Your task to perform on an android device: Clear the shopping cart on ebay.com. Add "duracell triple a" to the cart on ebay.com Image 0: 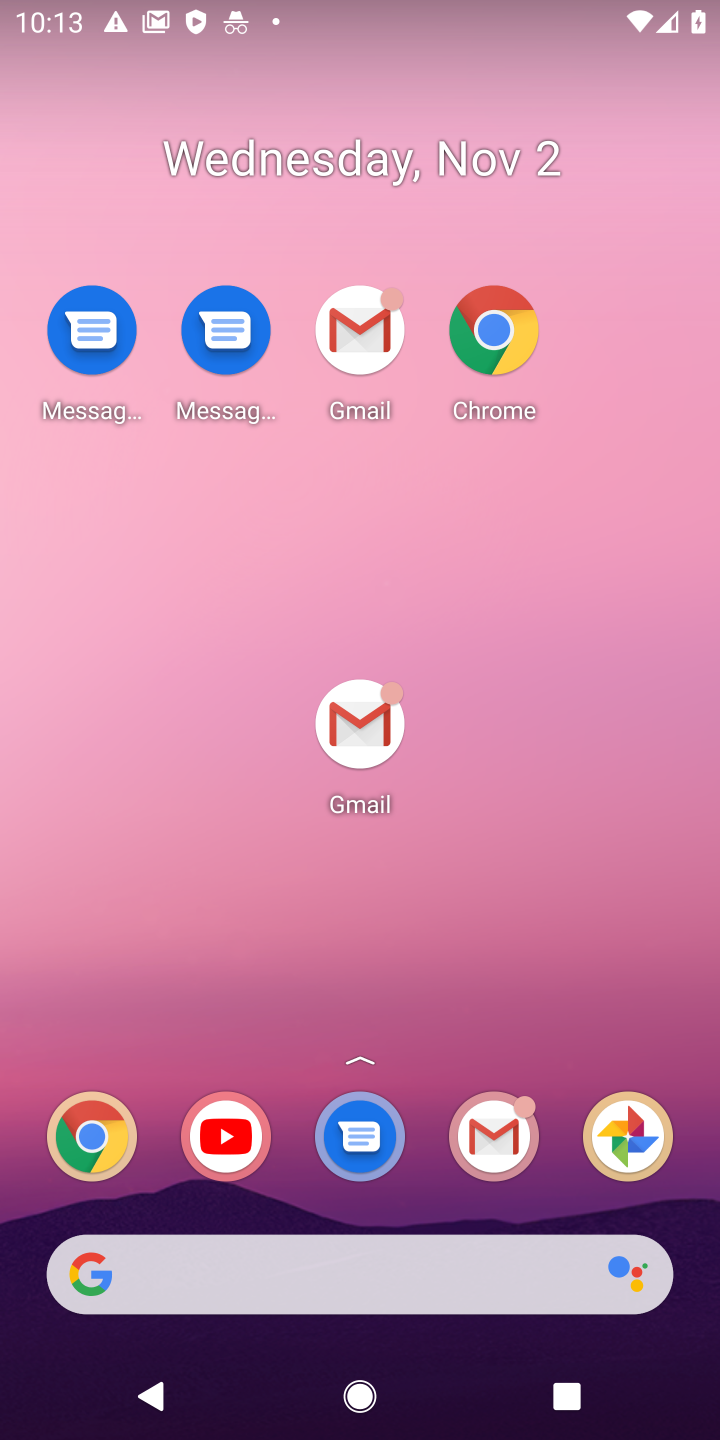
Step 0: drag from (470, 1038) to (472, 330)
Your task to perform on an android device: Clear the shopping cart on ebay.com. Add "duracell triple a" to the cart on ebay.com Image 1: 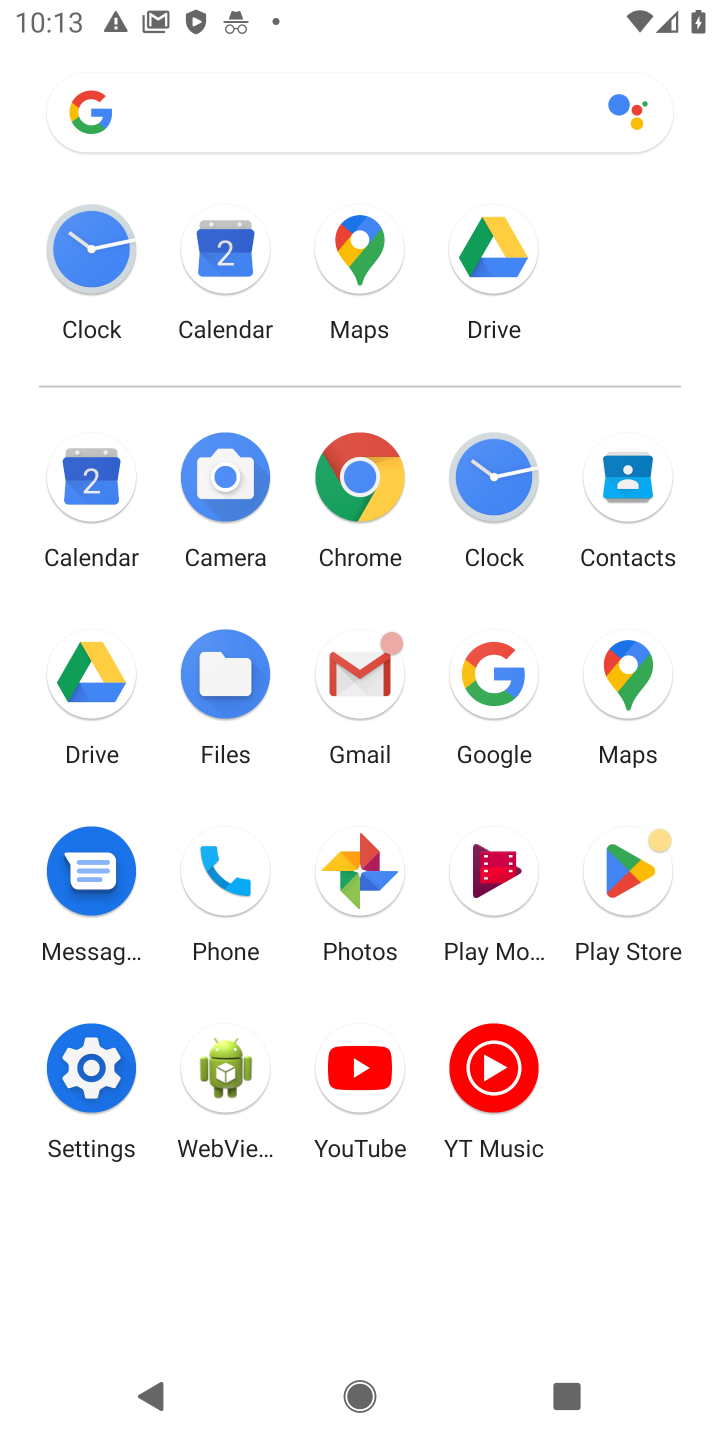
Step 1: click (503, 678)
Your task to perform on an android device: Clear the shopping cart on ebay.com. Add "duracell triple a" to the cart on ebay.com Image 2: 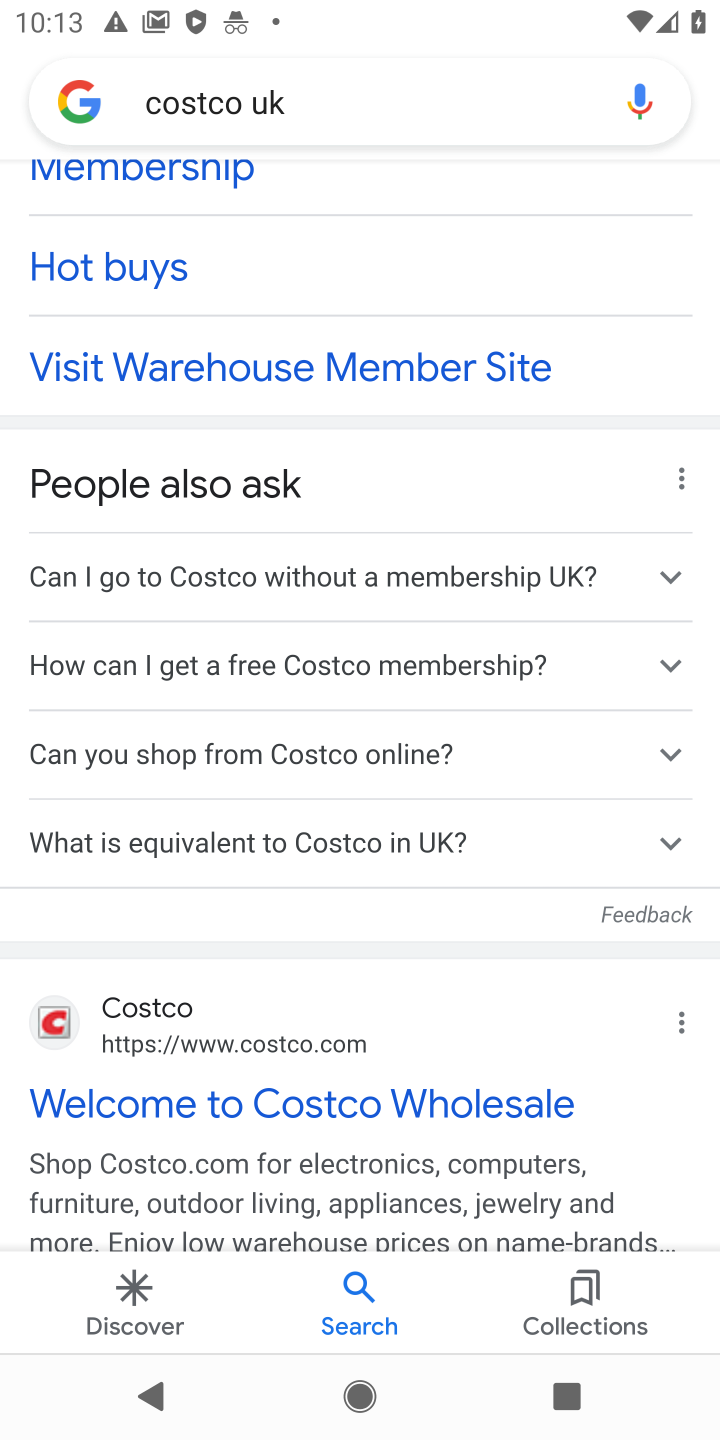
Step 2: click (344, 92)
Your task to perform on an android device: Clear the shopping cart on ebay.com. Add "duracell triple a" to the cart on ebay.com Image 3: 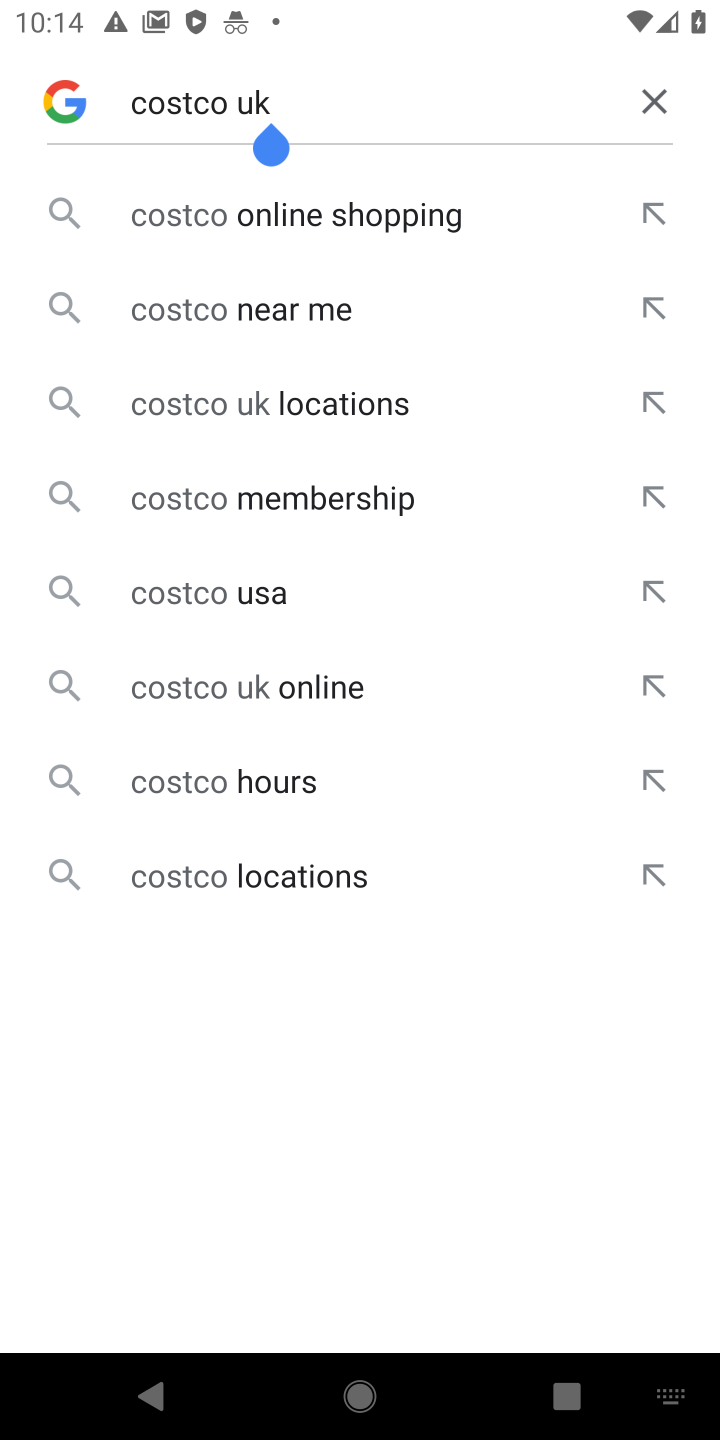
Step 3: click (660, 103)
Your task to perform on an android device: Clear the shopping cart on ebay.com. Add "duracell triple a" to the cart on ebay.com Image 4: 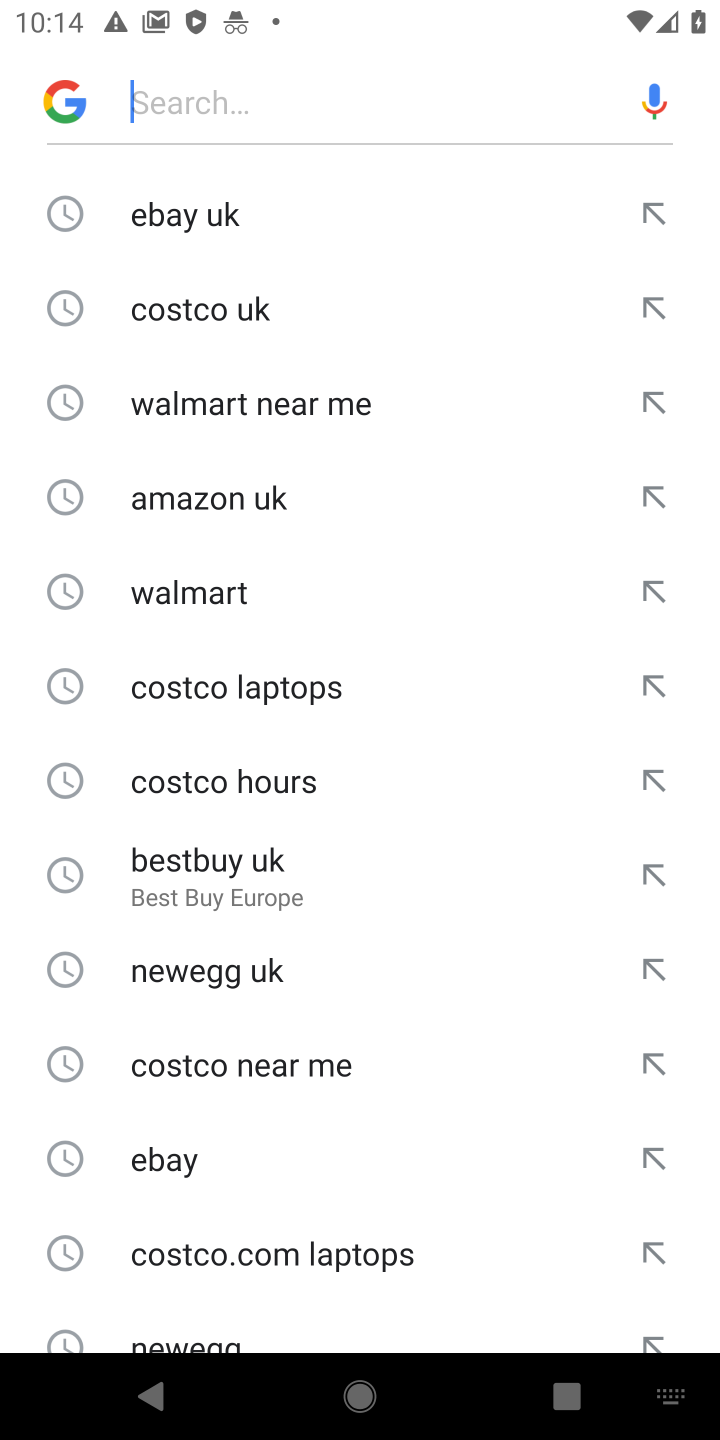
Step 4: click (227, 85)
Your task to perform on an android device: Clear the shopping cart on ebay.com. Add "duracell triple a" to the cart on ebay.com Image 5: 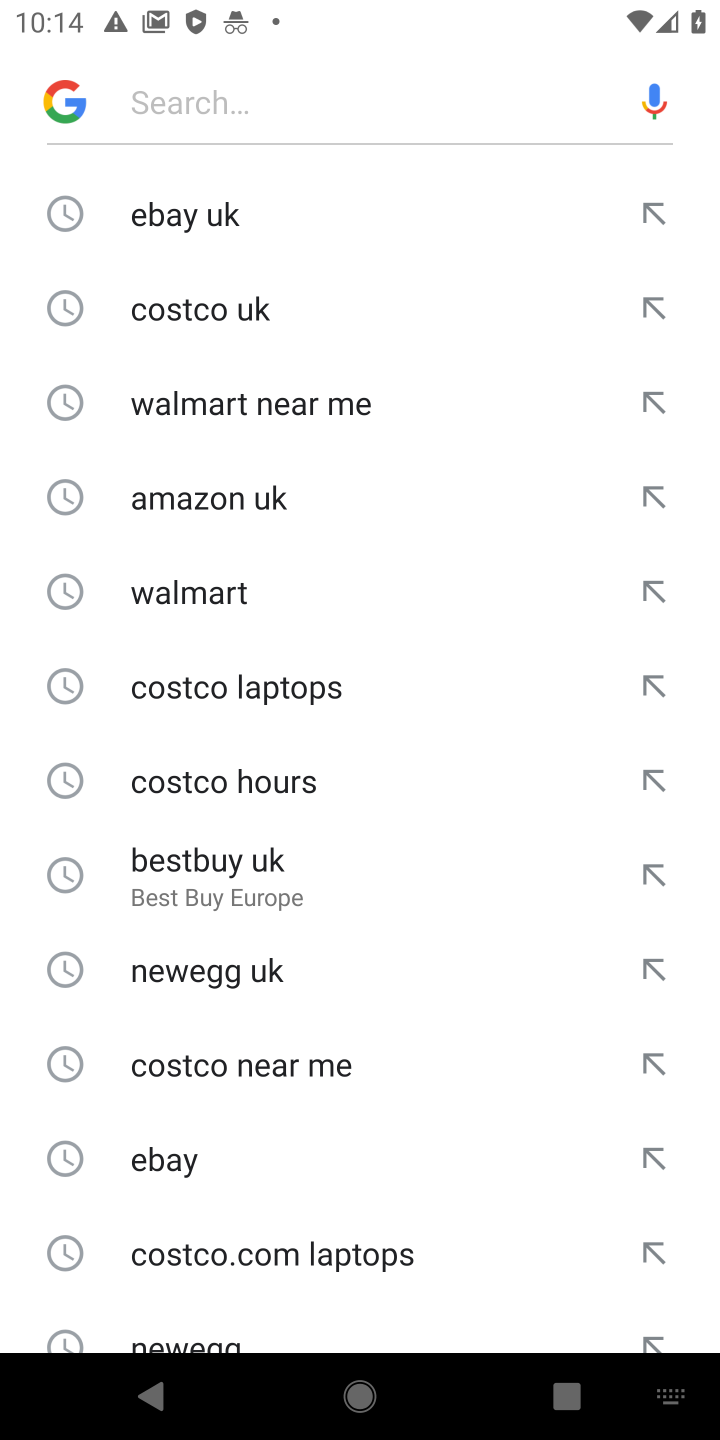
Step 5: type "ebay "
Your task to perform on an android device: Clear the shopping cart on ebay.com. Add "duracell triple a" to the cart on ebay.com Image 6: 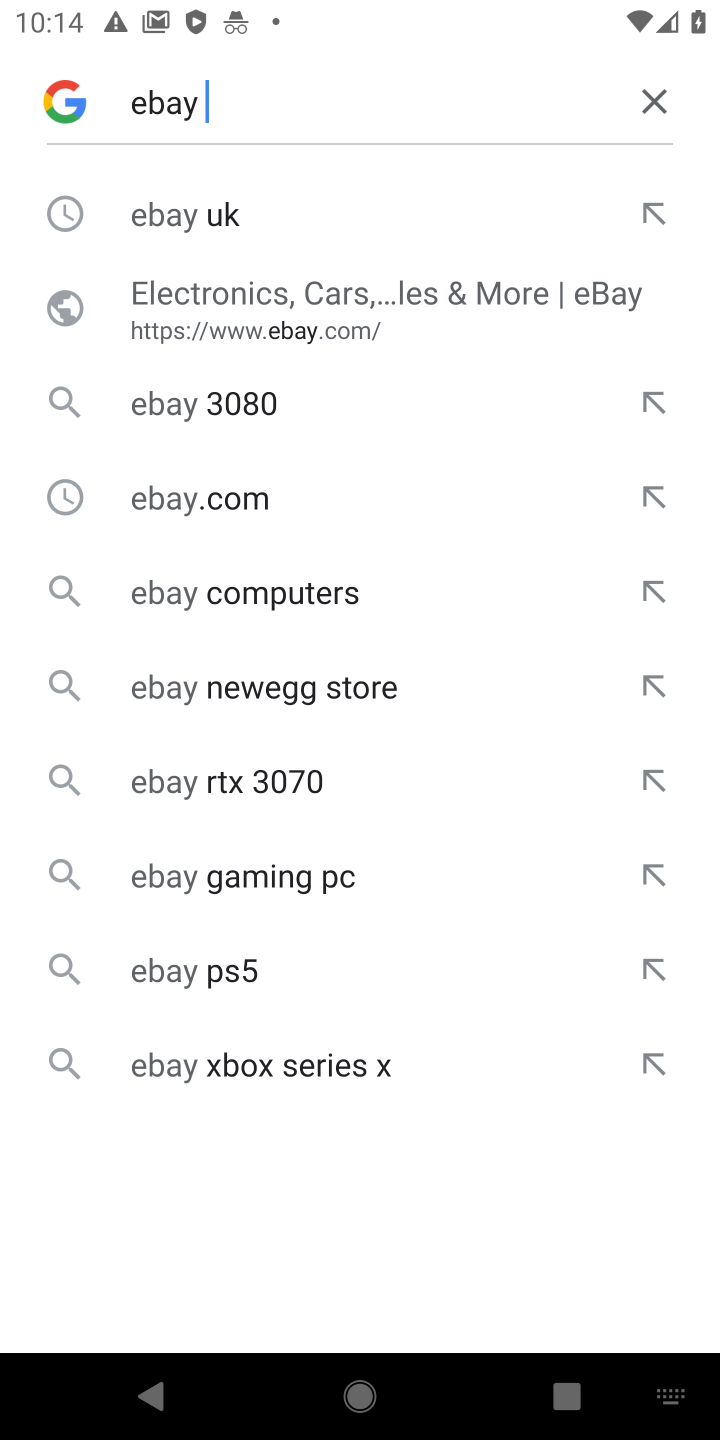
Step 6: click (177, 192)
Your task to perform on an android device: Clear the shopping cart on ebay.com. Add "duracell triple a" to the cart on ebay.com Image 7: 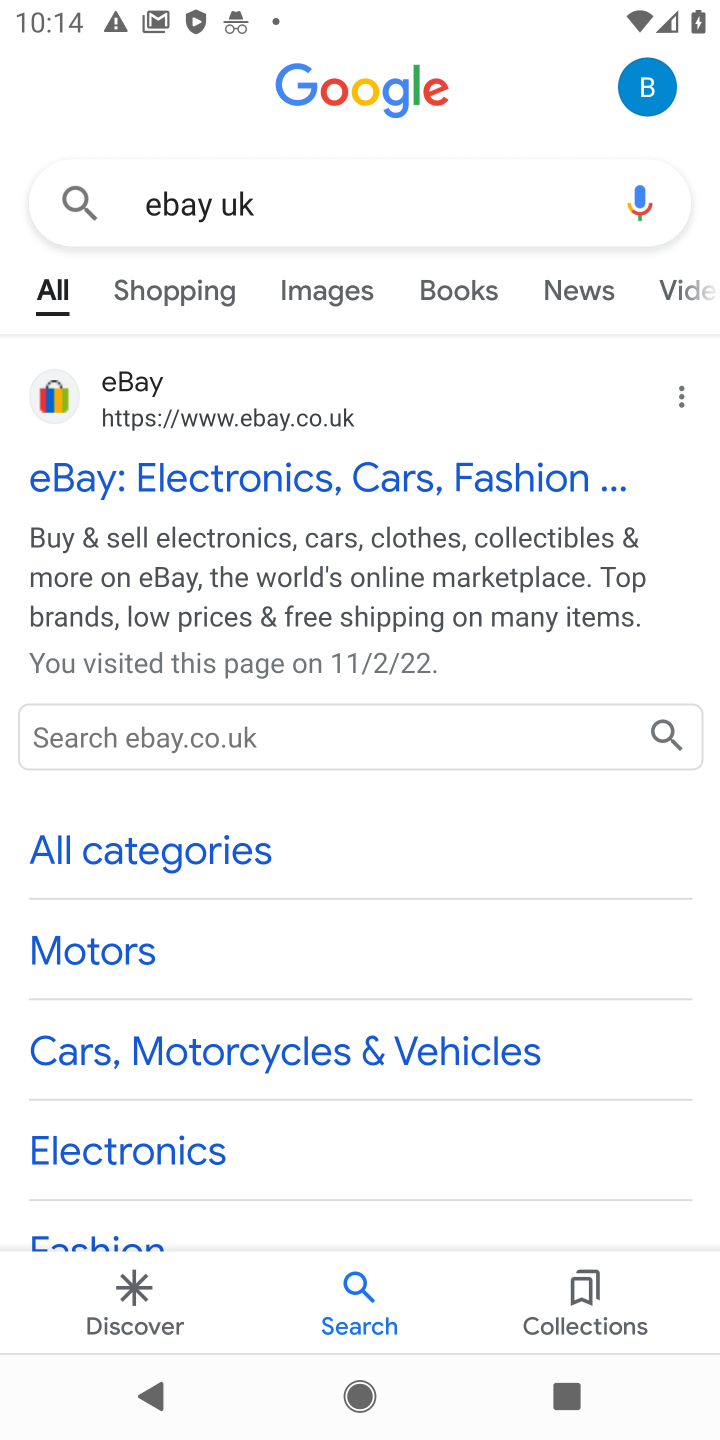
Step 7: click (58, 397)
Your task to perform on an android device: Clear the shopping cart on ebay.com. Add "duracell triple a" to the cart on ebay.com Image 8: 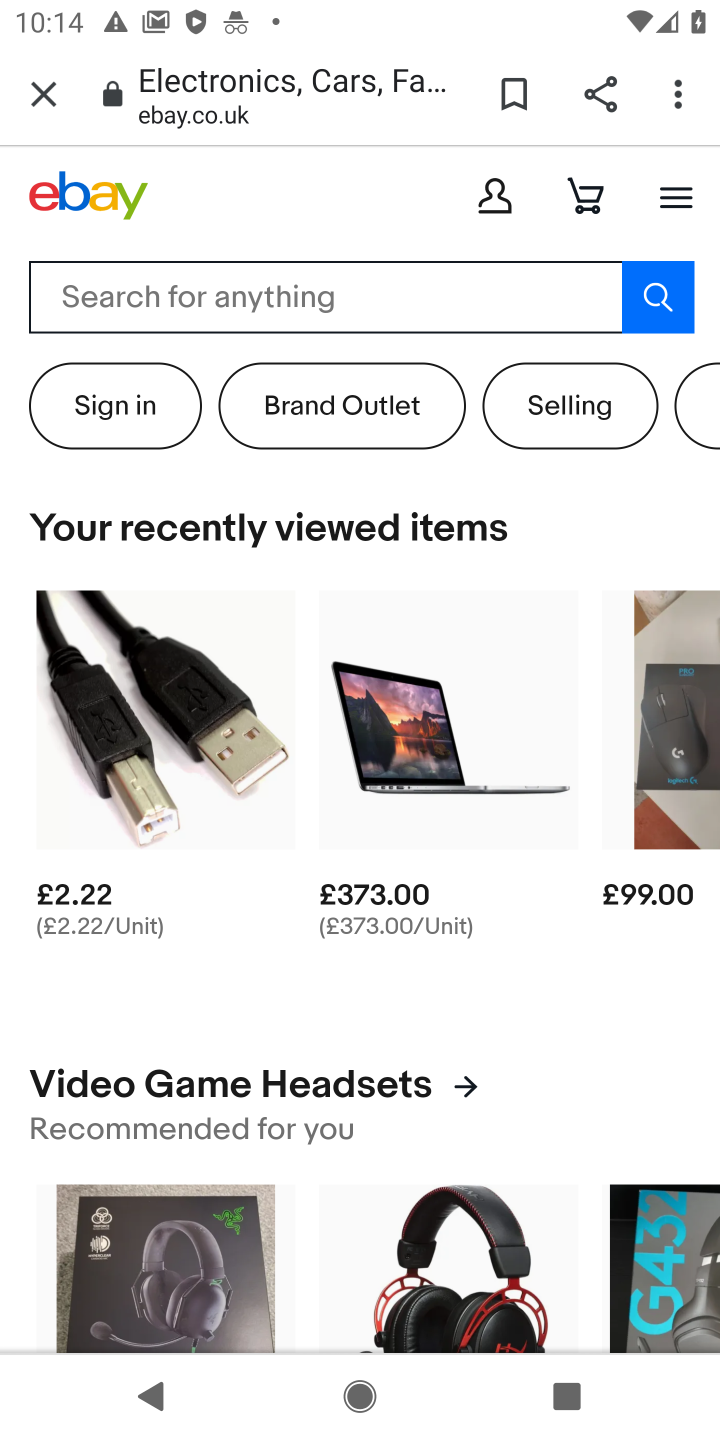
Step 8: click (281, 294)
Your task to perform on an android device: Clear the shopping cart on ebay.com. Add "duracell triple a" to the cart on ebay.com Image 9: 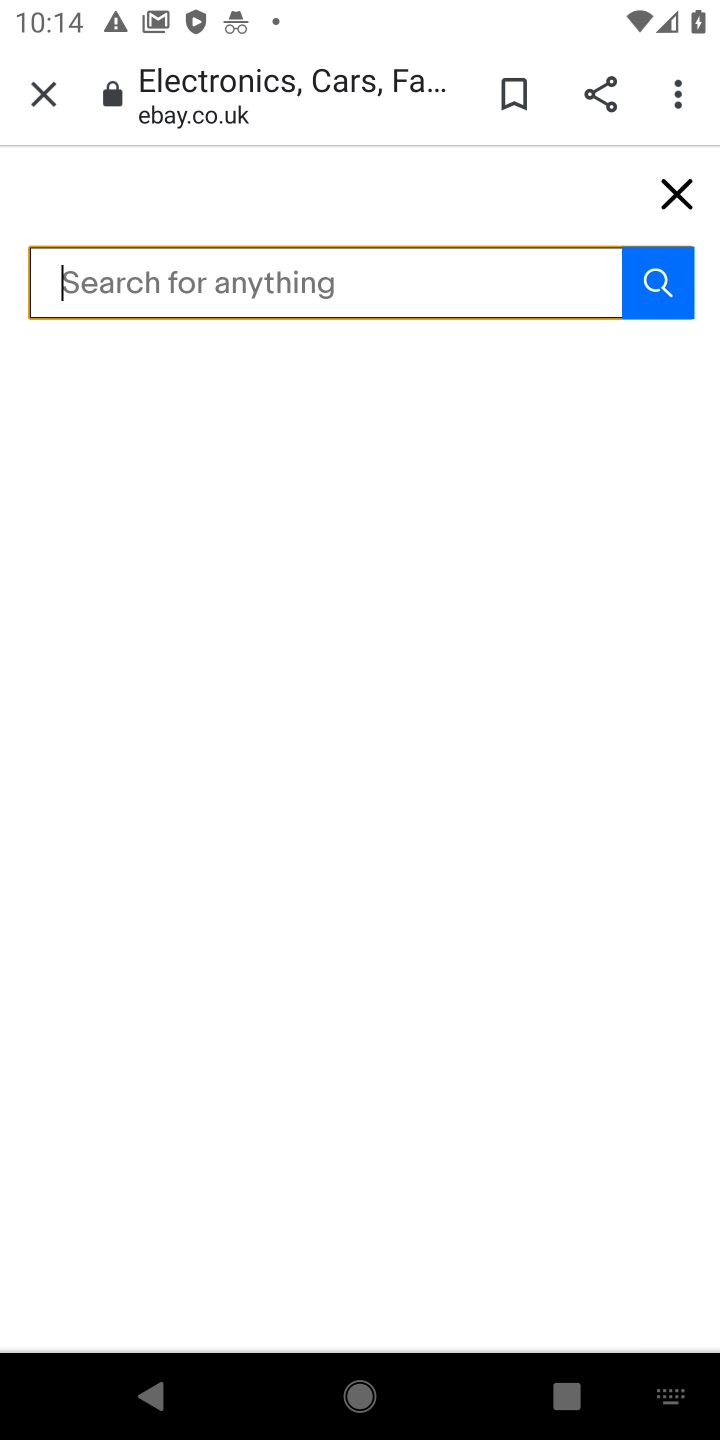
Step 9: click (301, 262)
Your task to perform on an android device: Clear the shopping cart on ebay.com. Add "duracell triple a" to the cart on ebay.com Image 10: 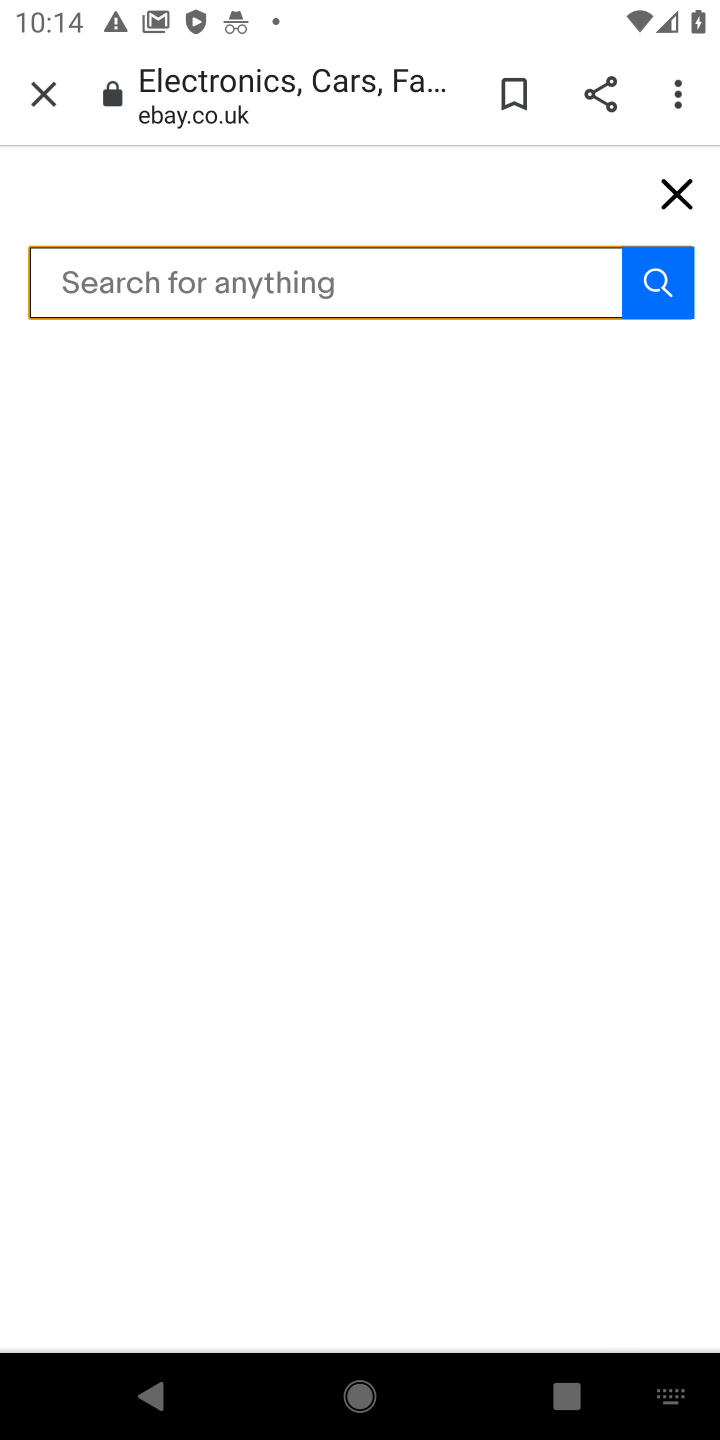
Step 10: type "duracell triple "
Your task to perform on an android device: Clear the shopping cart on ebay.com. Add "duracell triple a" to the cart on ebay.com Image 11: 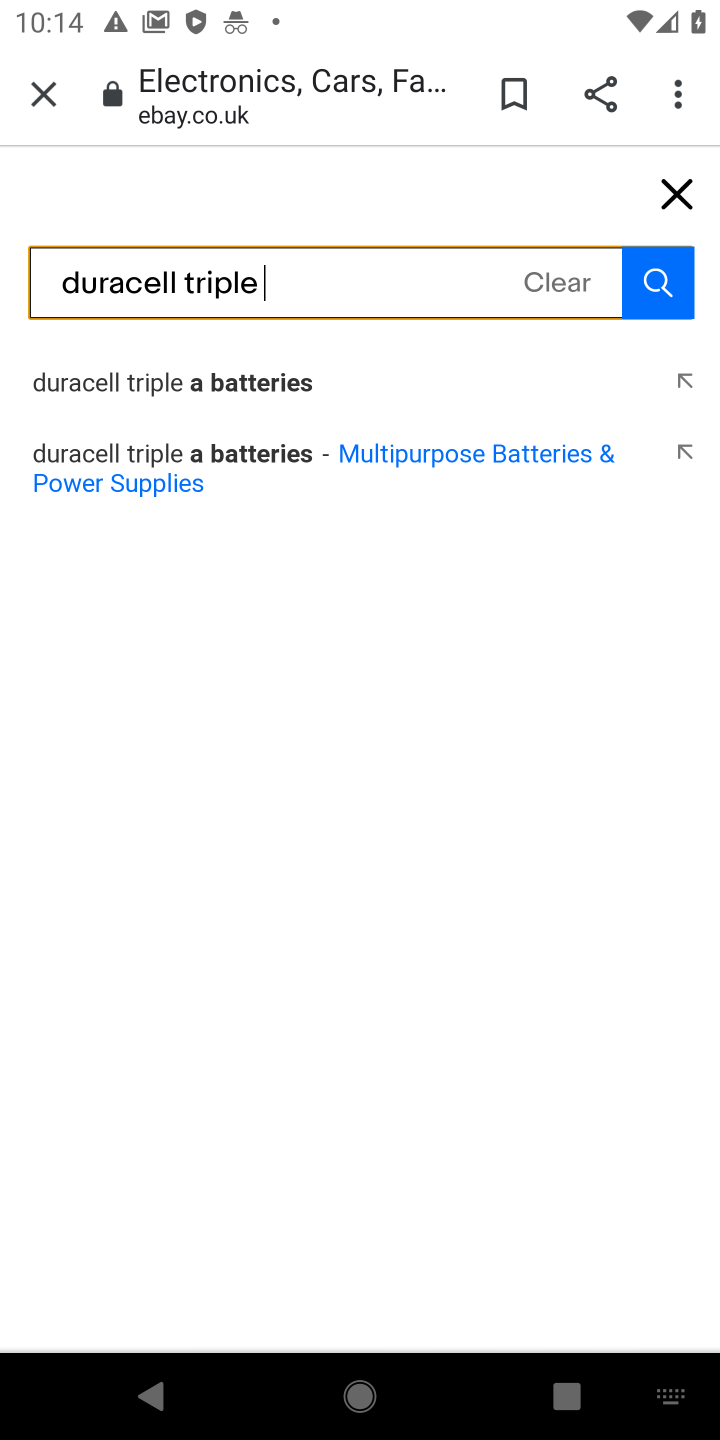
Step 11: click (182, 401)
Your task to perform on an android device: Clear the shopping cart on ebay.com. Add "duracell triple a" to the cart on ebay.com Image 12: 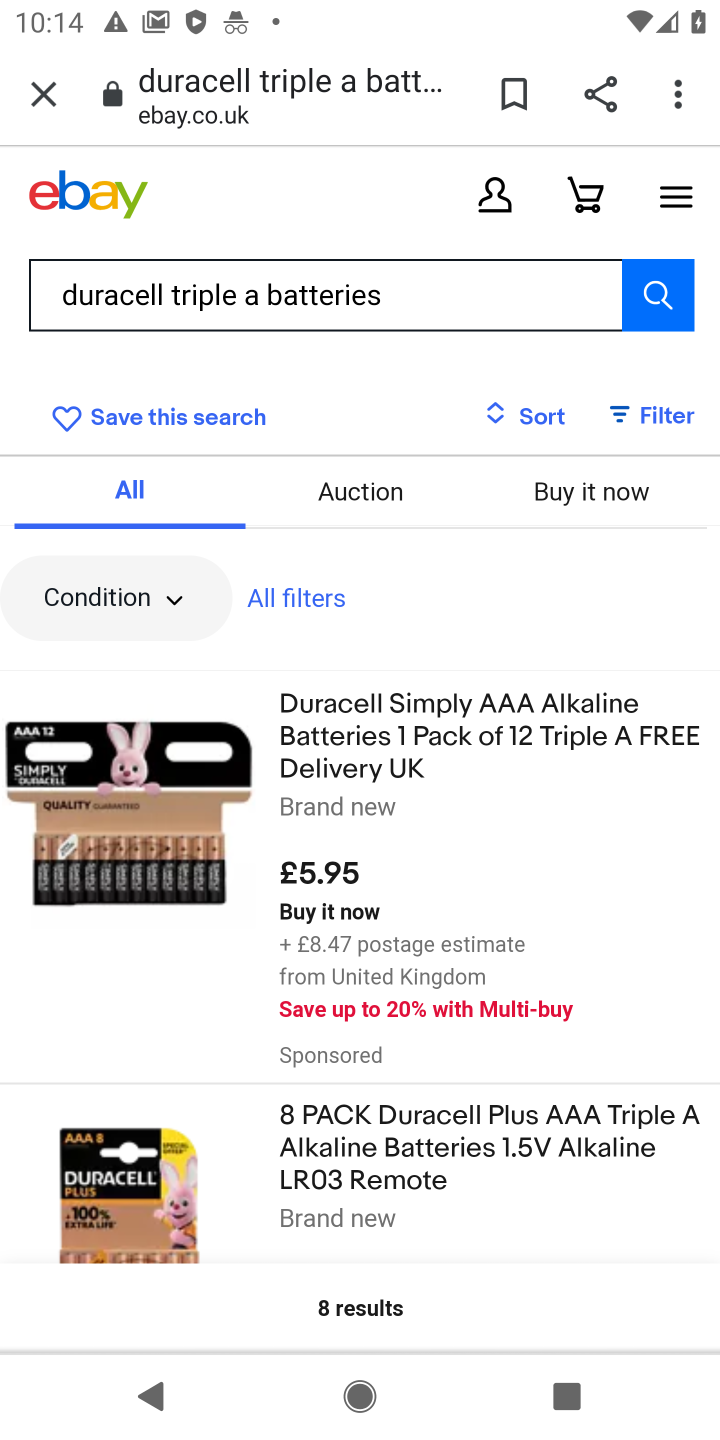
Step 12: click (405, 761)
Your task to perform on an android device: Clear the shopping cart on ebay.com. Add "duracell triple a" to the cart on ebay.com Image 13: 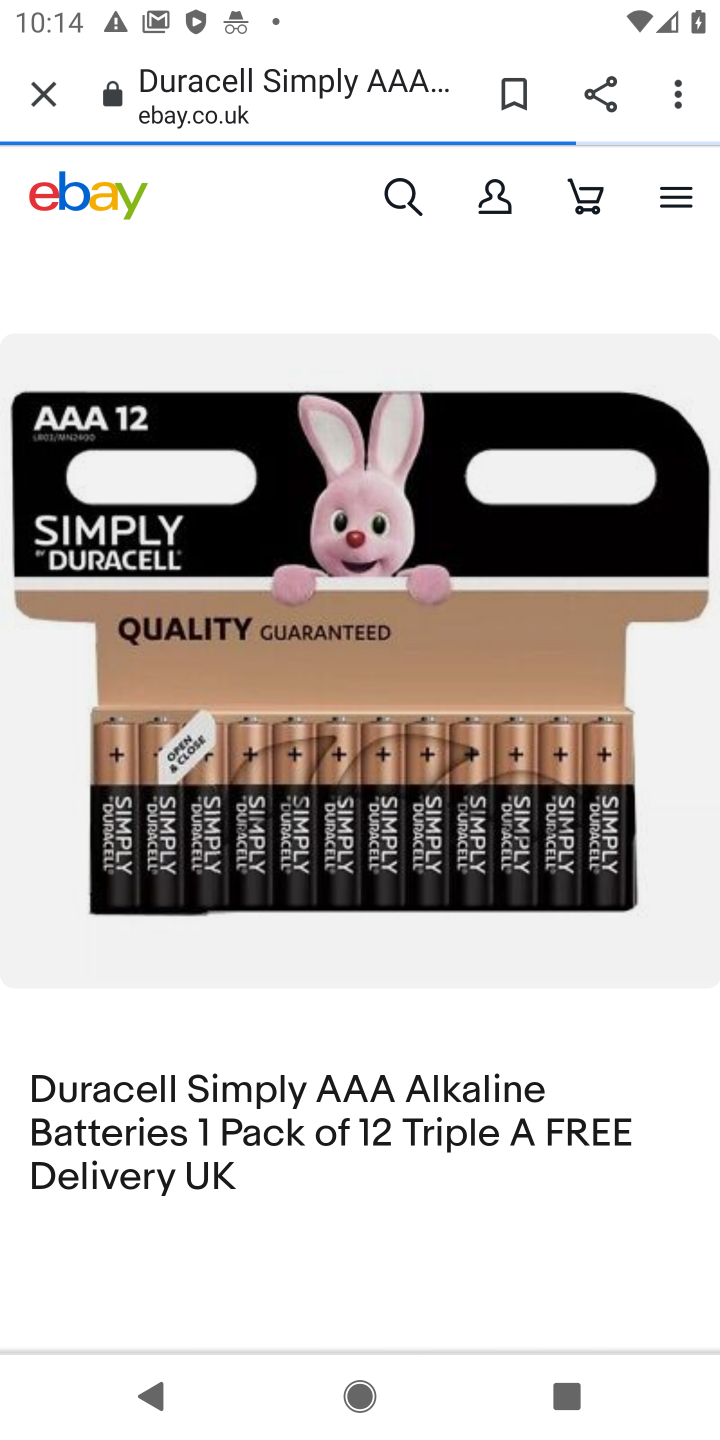
Step 13: click (498, 723)
Your task to perform on an android device: Clear the shopping cart on ebay.com. Add "duracell triple a" to the cart on ebay.com Image 14: 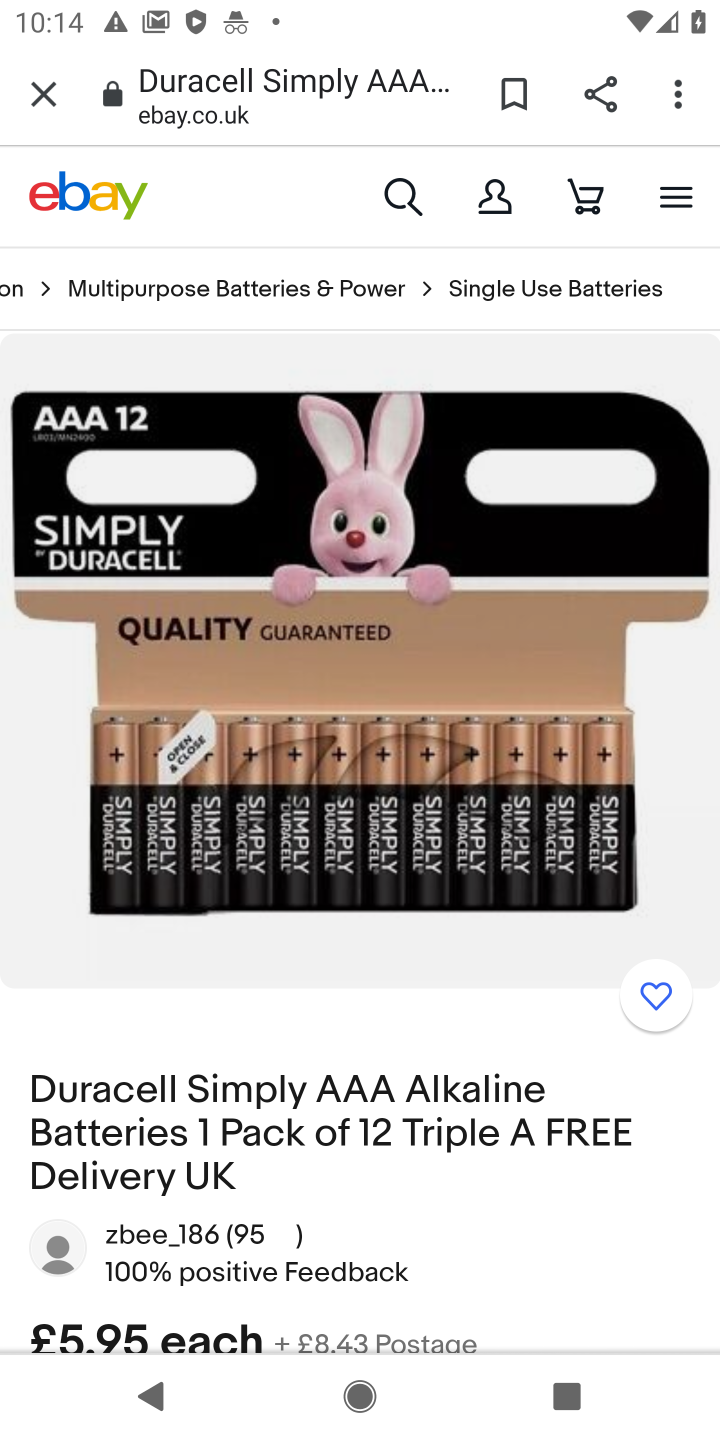
Step 14: drag from (548, 1127) to (528, 312)
Your task to perform on an android device: Clear the shopping cart on ebay.com. Add "duracell triple a" to the cart on ebay.com Image 15: 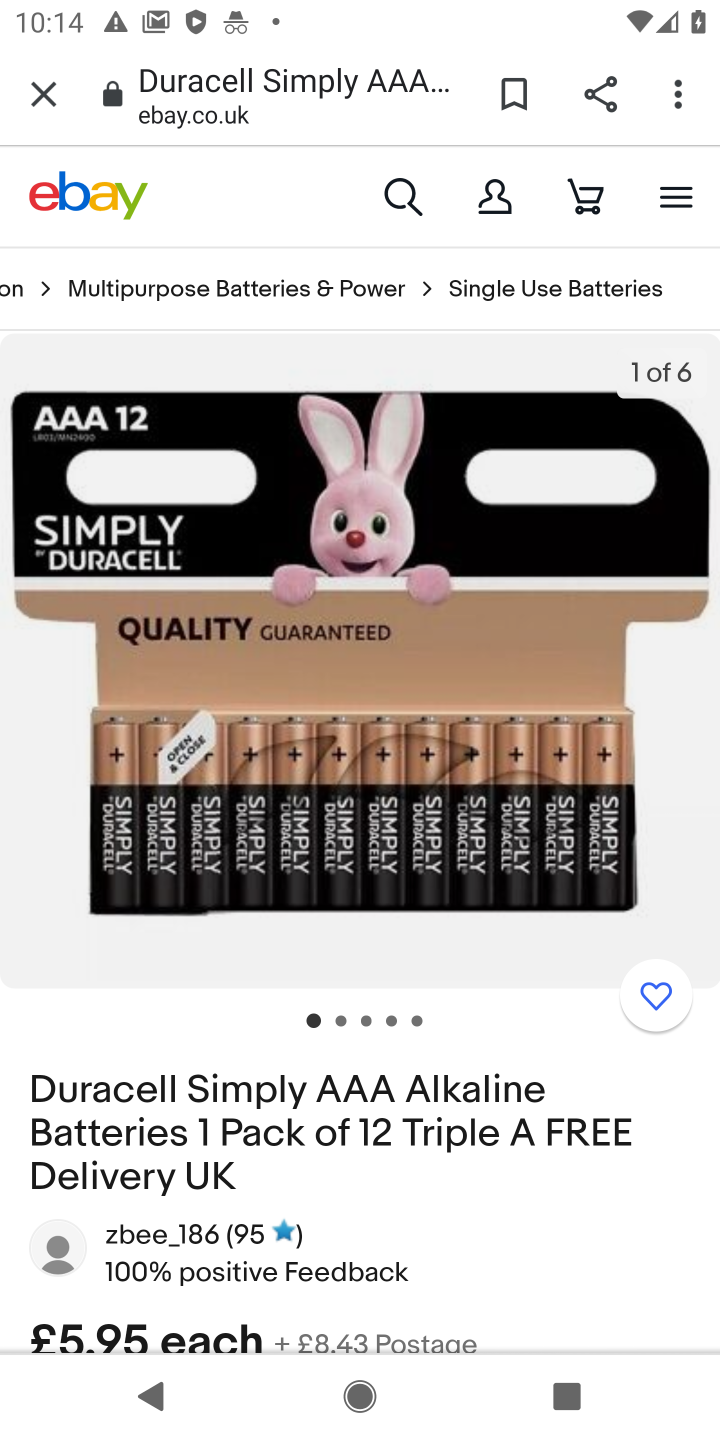
Step 15: drag from (367, 1208) to (398, 418)
Your task to perform on an android device: Clear the shopping cart on ebay.com. Add "duracell triple a" to the cart on ebay.com Image 16: 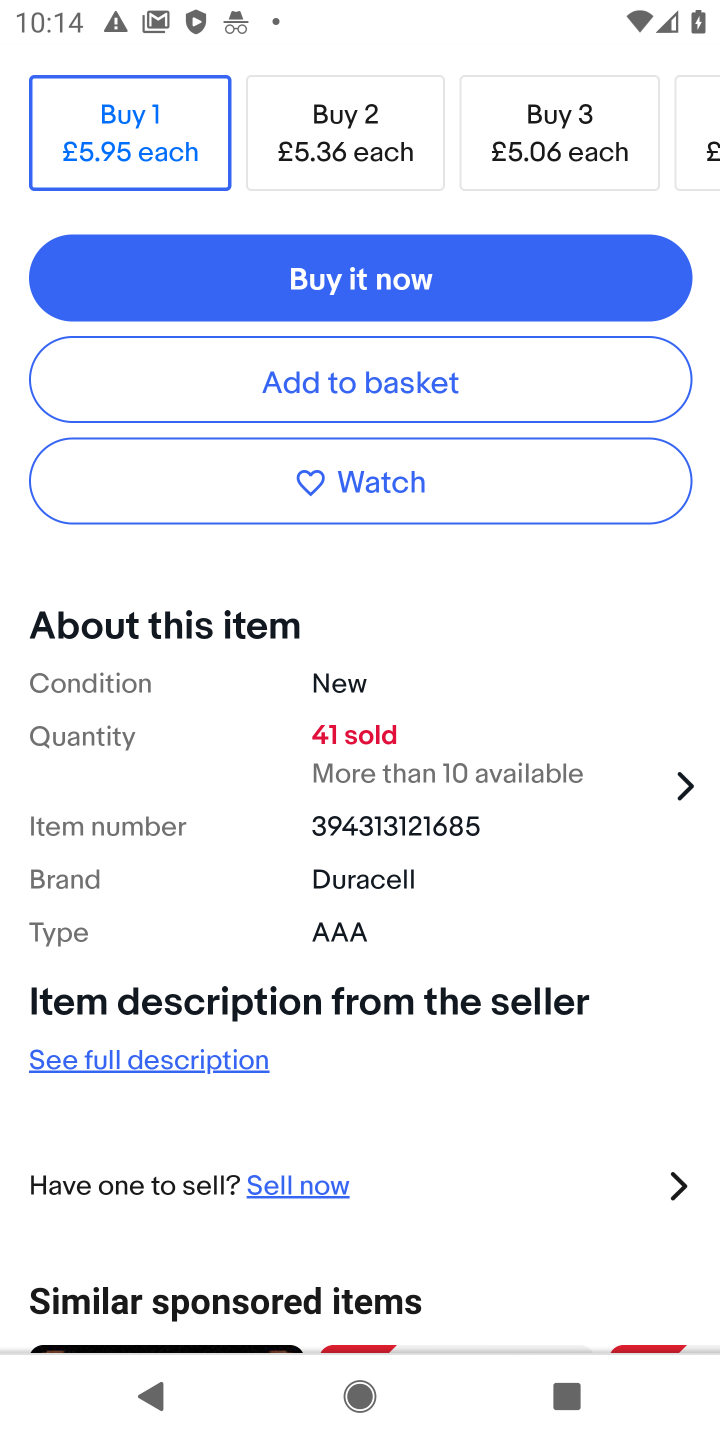
Step 16: click (351, 376)
Your task to perform on an android device: Clear the shopping cart on ebay.com. Add "duracell triple a" to the cart on ebay.com Image 17: 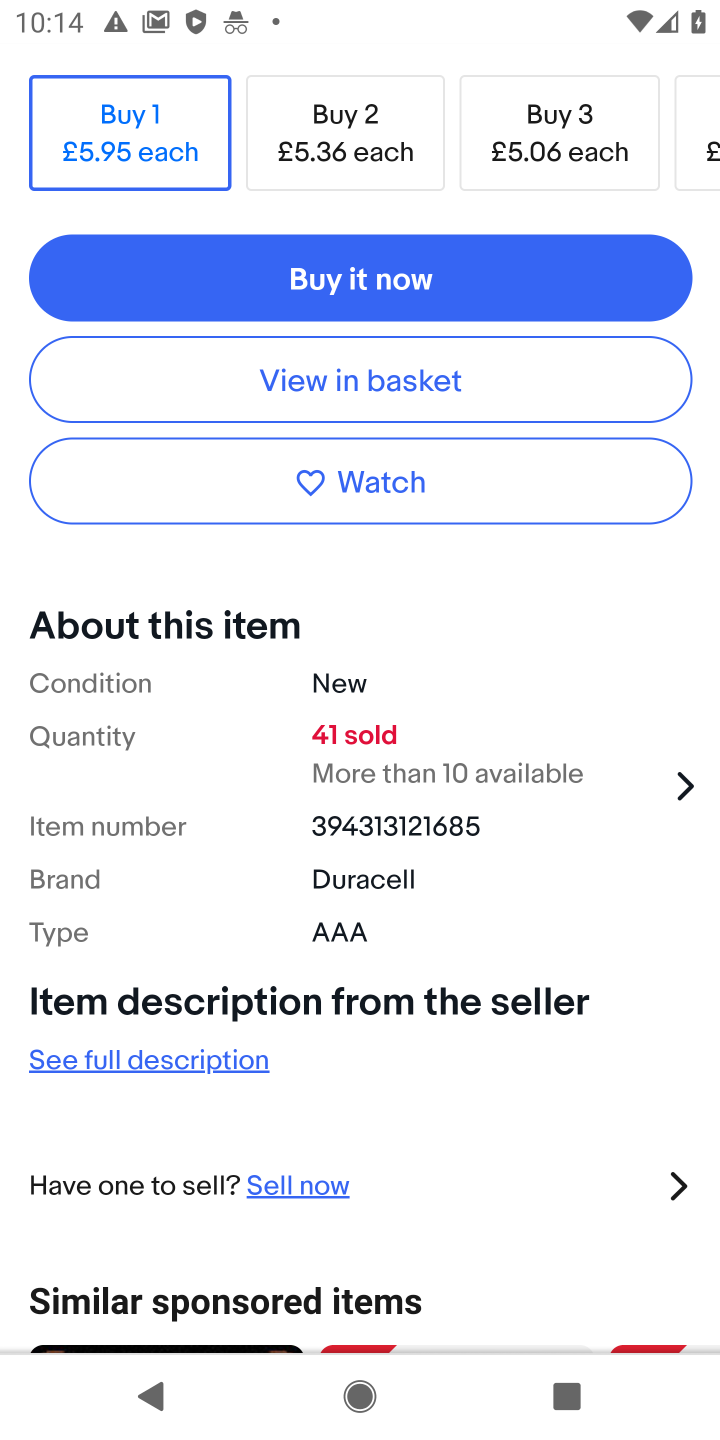
Step 17: task complete